Your task to perform on an android device: turn off wifi Image 0: 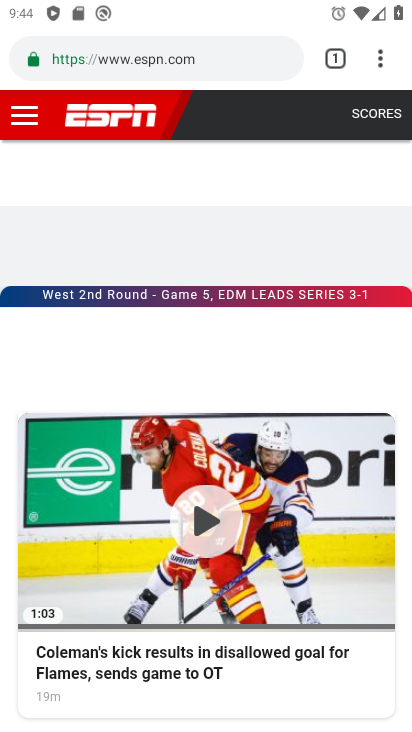
Step 0: press home button
Your task to perform on an android device: turn off wifi Image 1: 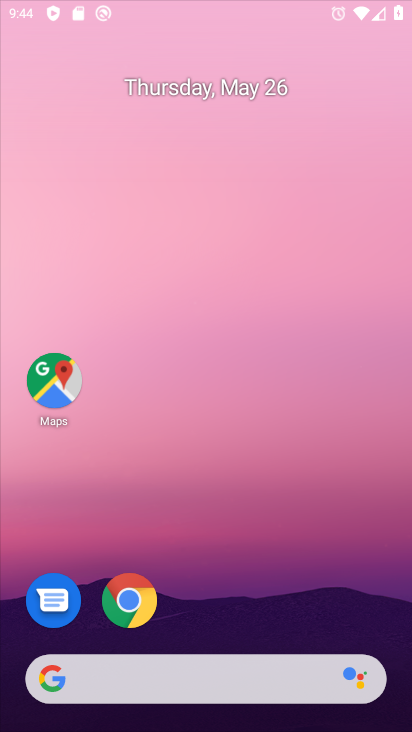
Step 1: drag from (257, 550) to (335, 104)
Your task to perform on an android device: turn off wifi Image 2: 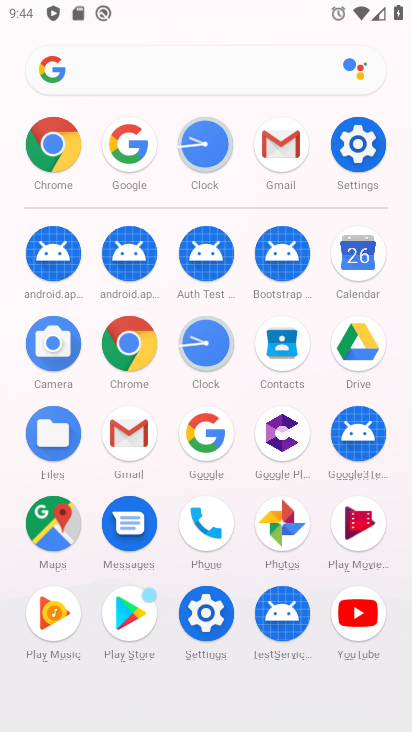
Step 2: click (359, 145)
Your task to perform on an android device: turn off wifi Image 3: 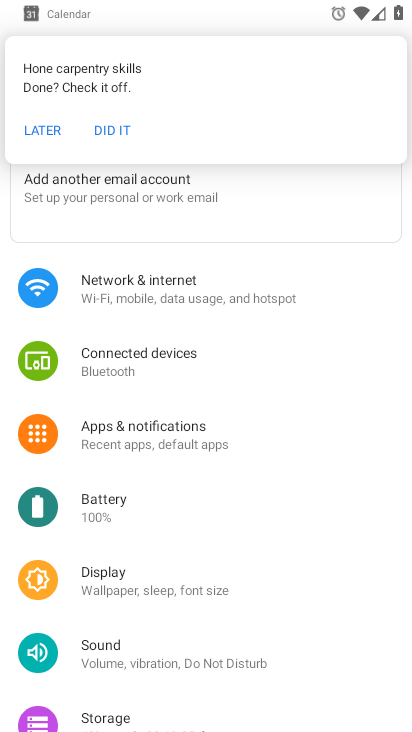
Step 3: click (191, 288)
Your task to perform on an android device: turn off wifi Image 4: 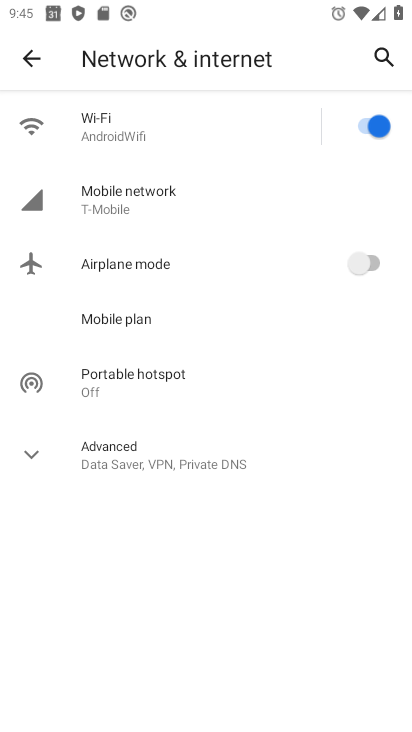
Step 4: click (32, 132)
Your task to perform on an android device: turn off wifi Image 5: 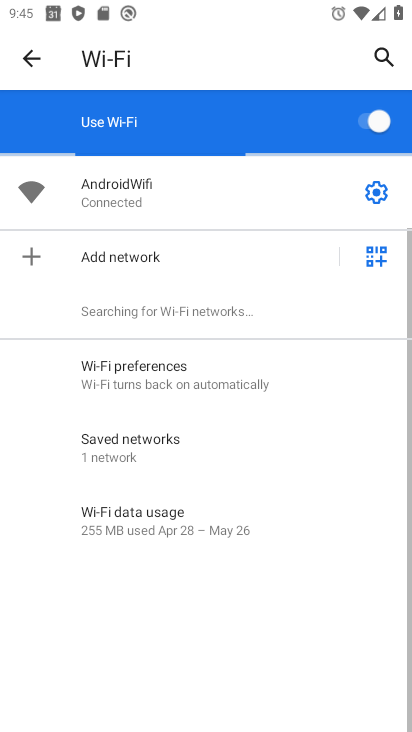
Step 5: click (371, 132)
Your task to perform on an android device: turn off wifi Image 6: 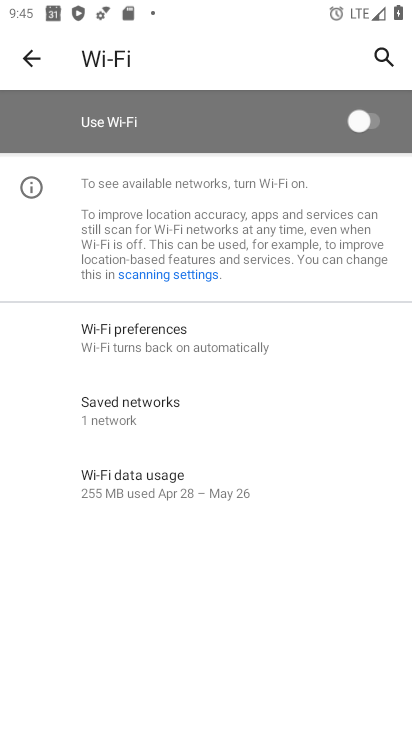
Step 6: task complete